Your task to perform on an android device: Open Google Image 0: 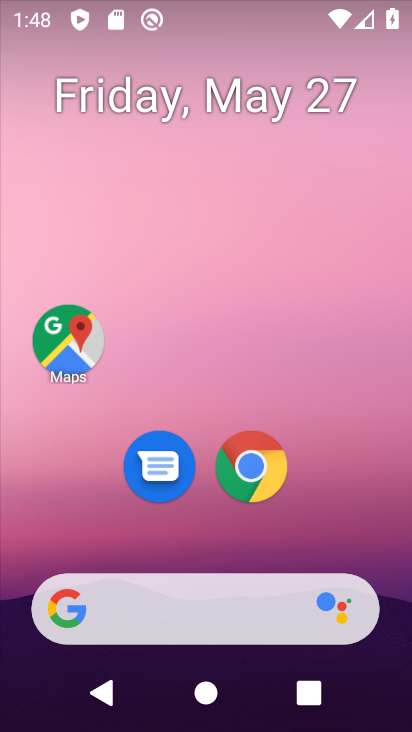
Step 0: drag from (355, 498) to (398, 18)
Your task to perform on an android device: Open Google Image 1: 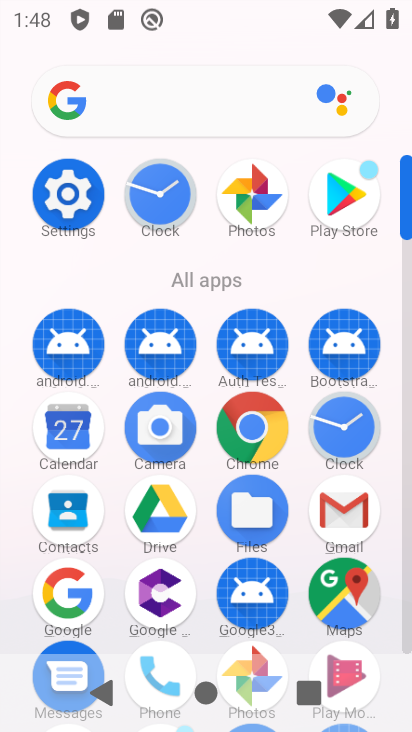
Step 1: click (59, 584)
Your task to perform on an android device: Open Google Image 2: 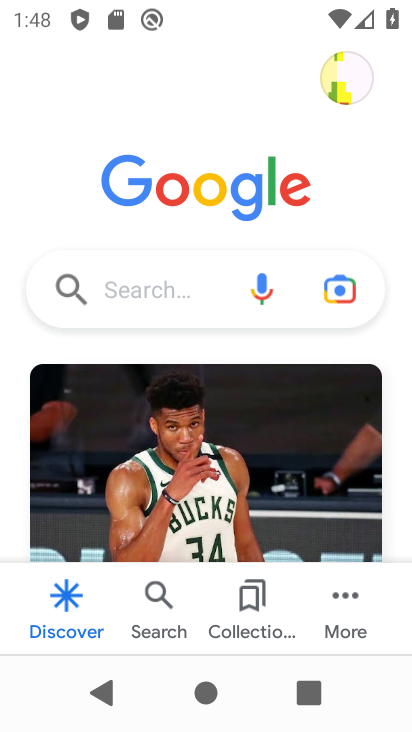
Step 2: task complete